Your task to perform on an android device: turn off notifications settings in the gmail app Image 0: 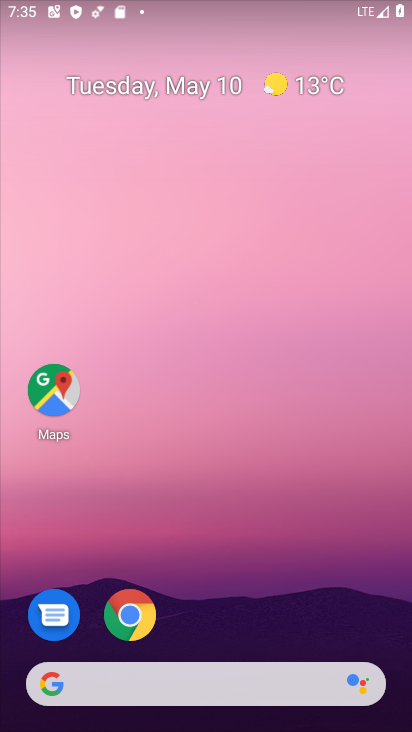
Step 0: drag from (300, 601) to (323, 123)
Your task to perform on an android device: turn off notifications settings in the gmail app Image 1: 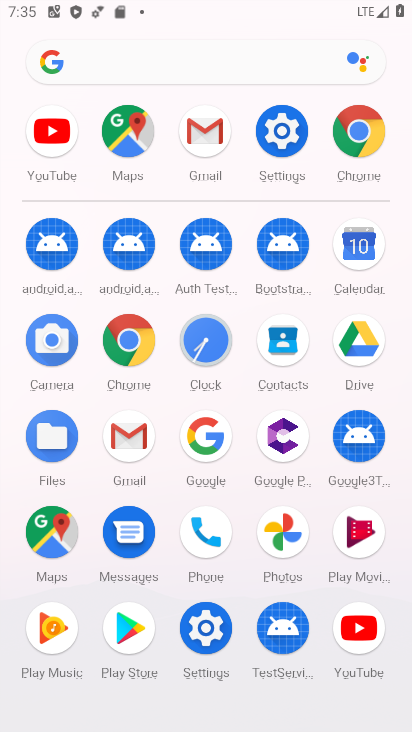
Step 1: click (210, 137)
Your task to perform on an android device: turn off notifications settings in the gmail app Image 2: 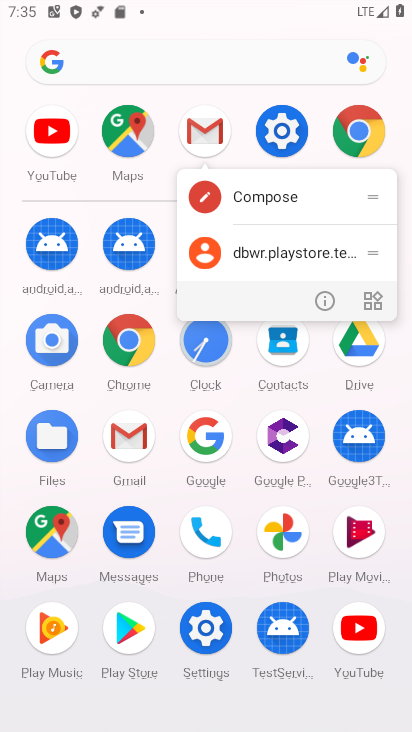
Step 2: click (210, 136)
Your task to perform on an android device: turn off notifications settings in the gmail app Image 3: 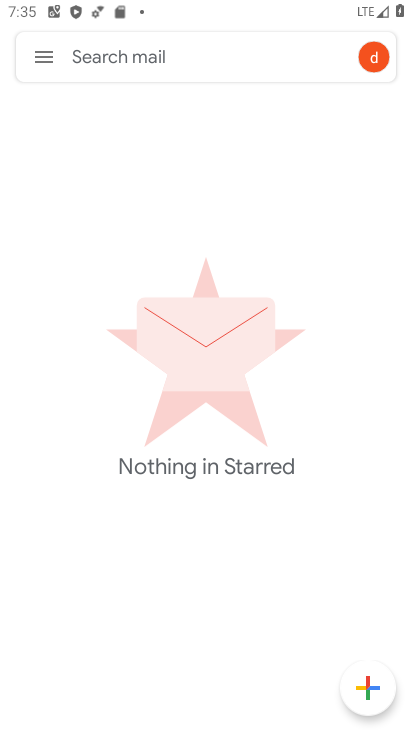
Step 3: click (57, 59)
Your task to perform on an android device: turn off notifications settings in the gmail app Image 4: 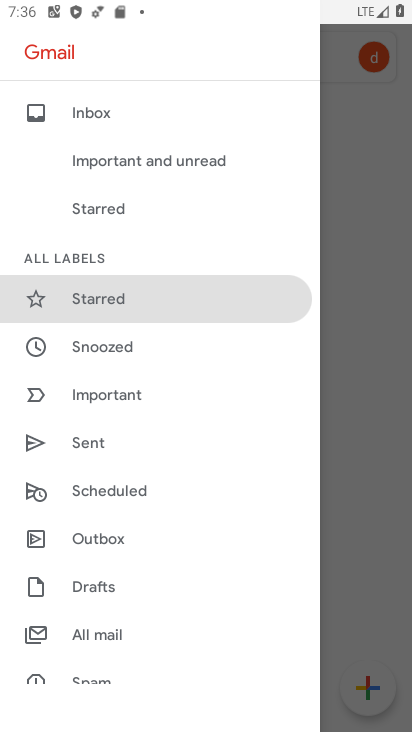
Step 4: drag from (141, 620) to (118, 184)
Your task to perform on an android device: turn off notifications settings in the gmail app Image 5: 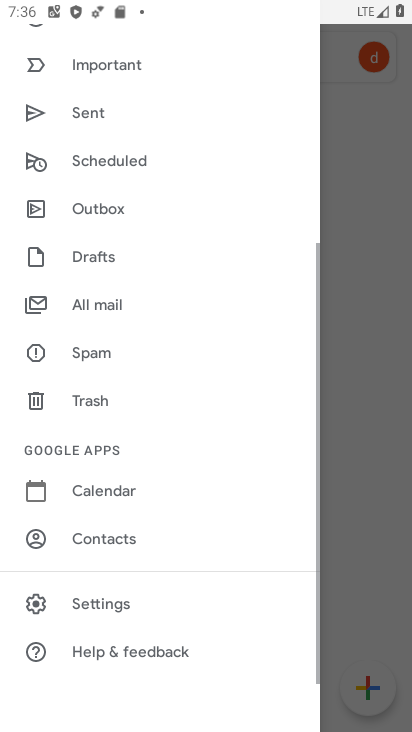
Step 5: click (114, 604)
Your task to perform on an android device: turn off notifications settings in the gmail app Image 6: 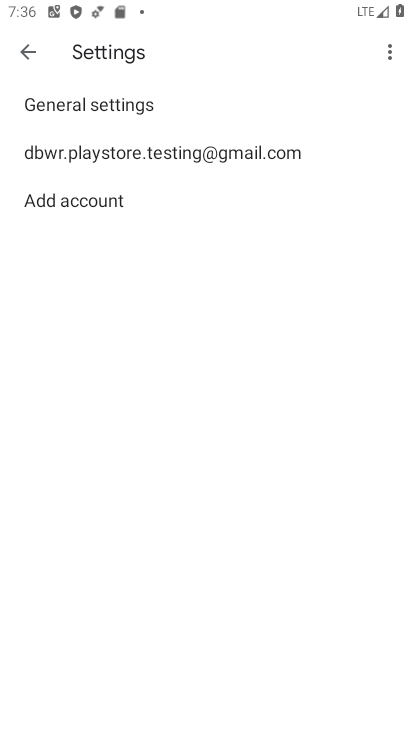
Step 6: click (69, 152)
Your task to perform on an android device: turn off notifications settings in the gmail app Image 7: 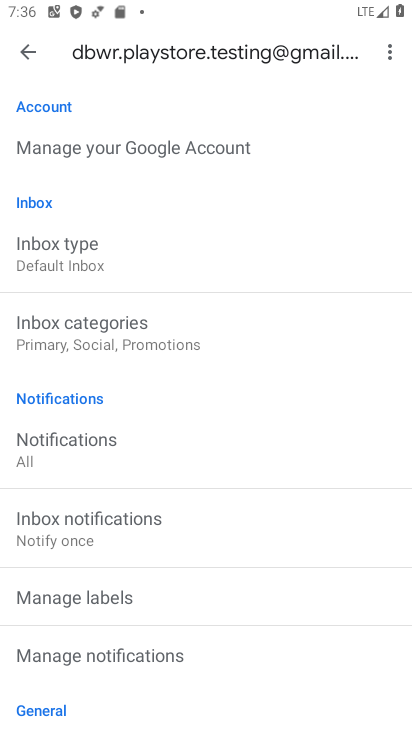
Step 7: drag from (197, 628) to (231, 190)
Your task to perform on an android device: turn off notifications settings in the gmail app Image 8: 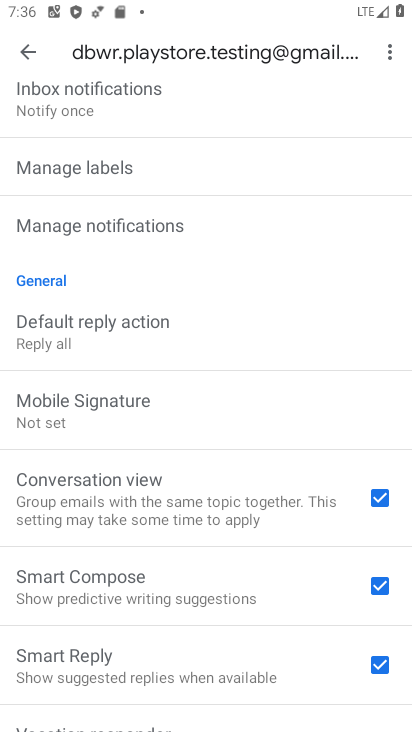
Step 8: drag from (204, 212) to (215, 622)
Your task to perform on an android device: turn off notifications settings in the gmail app Image 9: 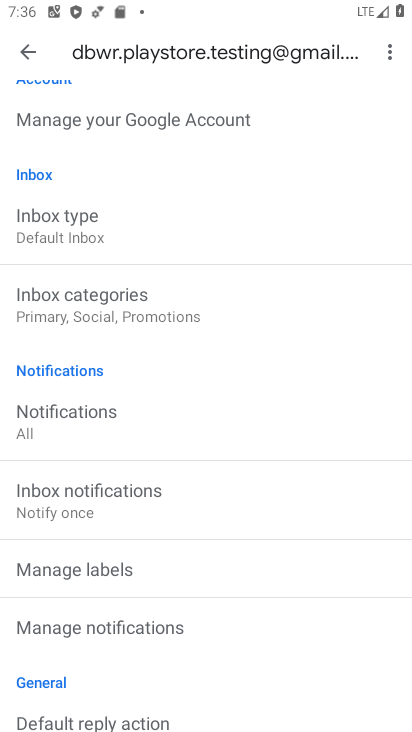
Step 9: drag from (147, 384) to (184, 662)
Your task to perform on an android device: turn off notifications settings in the gmail app Image 10: 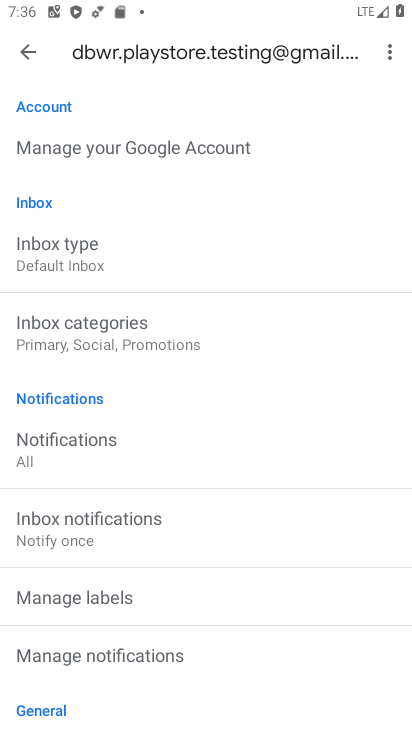
Step 10: click (47, 442)
Your task to perform on an android device: turn off notifications settings in the gmail app Image 11: 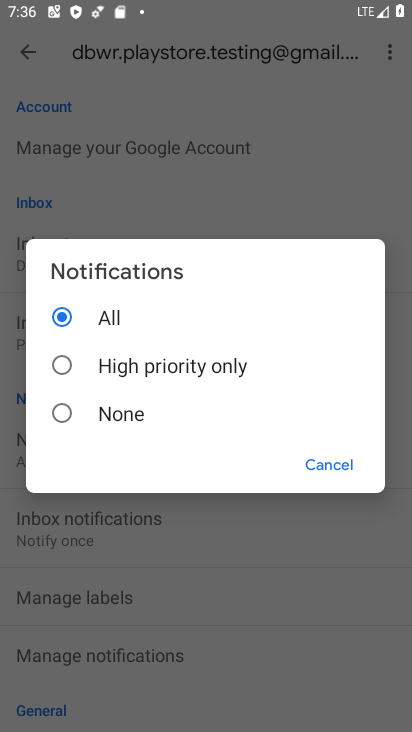
Step 11: click (66, 418)
Your task to perform on an android device: turn off notifications settings in the gmail app Image 12: 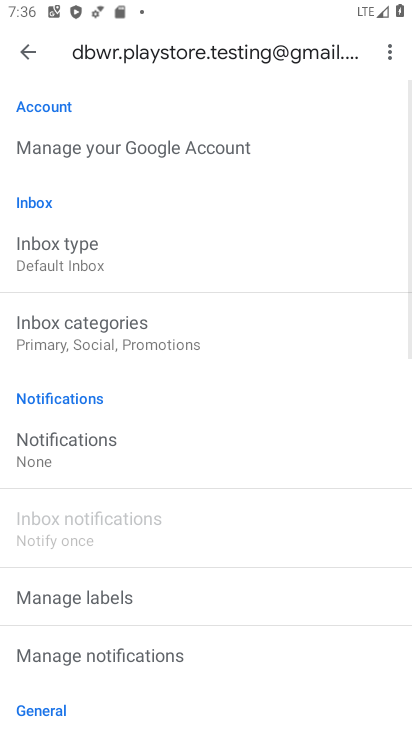
Step 12: task complete